Your task to perform on an android device: open chrome and create a bookmark for the current page Image 0: 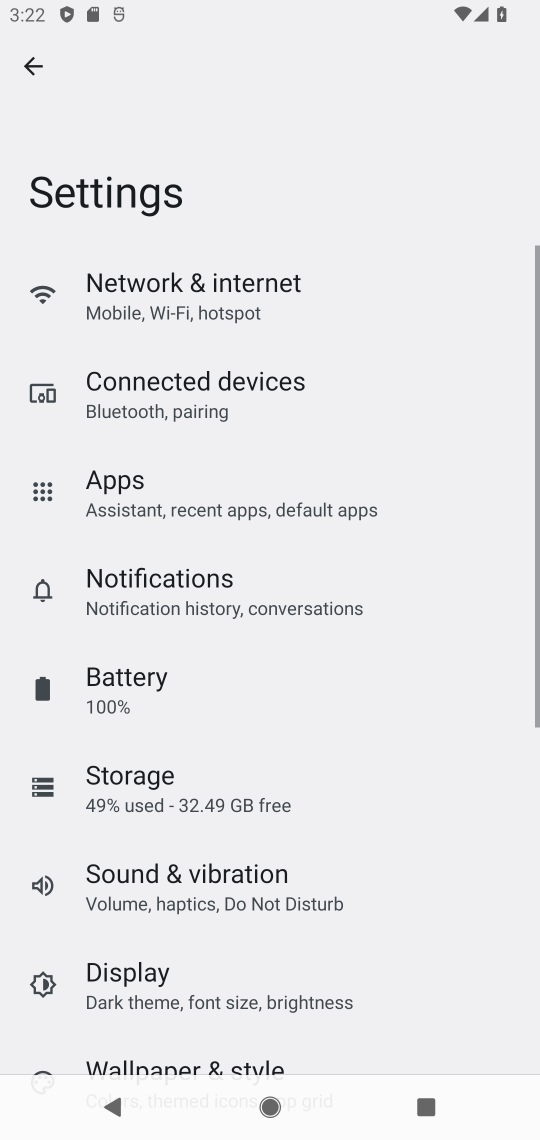
Step 0: press home button
Your task to perform on an android device: open chrome and create a bookmark for the current page Image 1: 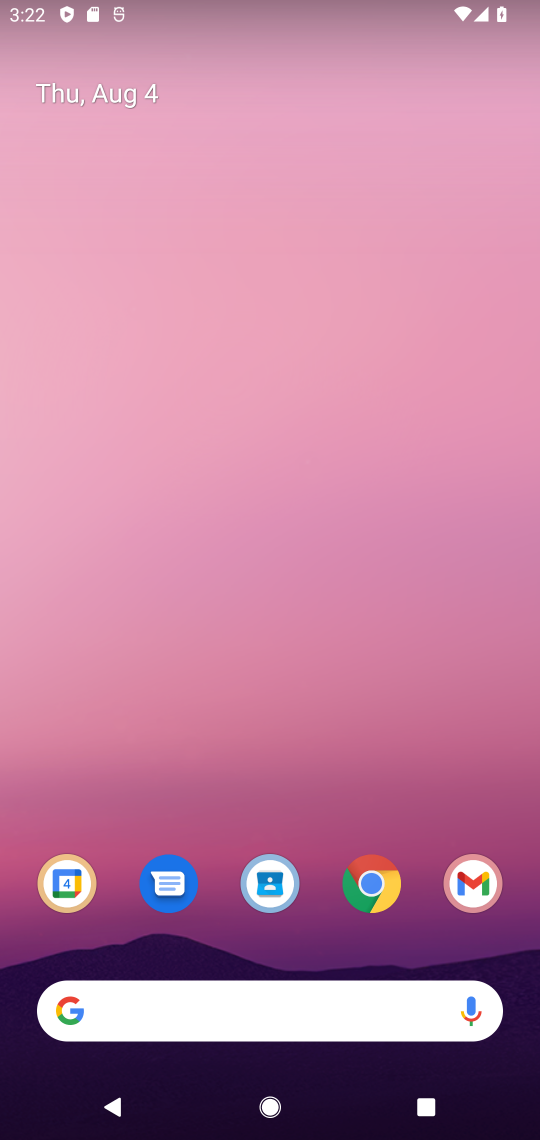
Step 1: drag from (393, 776) to (356, 39)
Your task to perform on an android device: open chrome and create a bookmark for the current page Image 2: 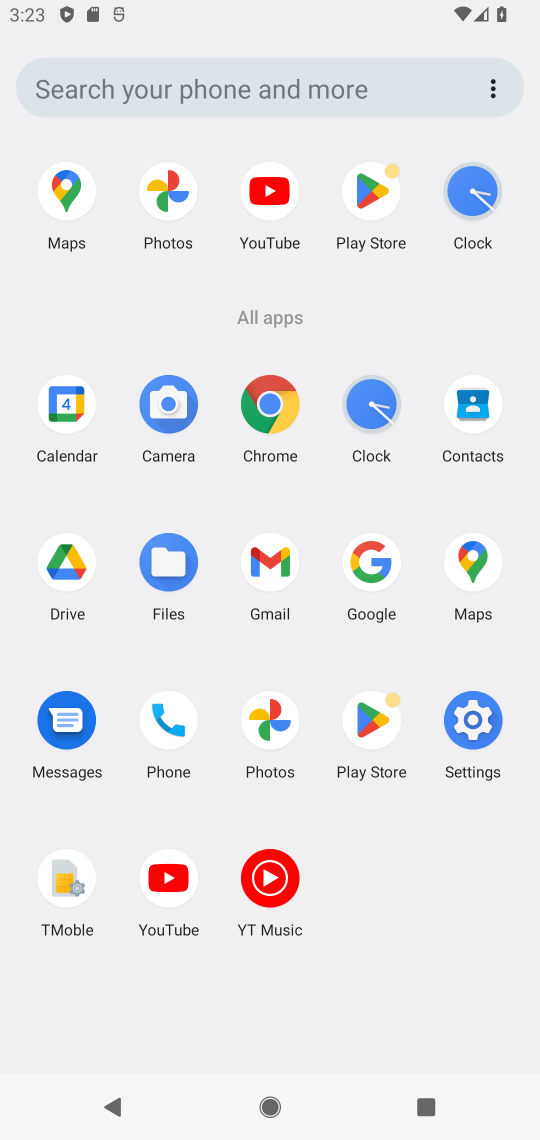
Step 2: click (274, 415)
Your task to perform on an android device: open chrome and create a bookmark for the current page Image 3: 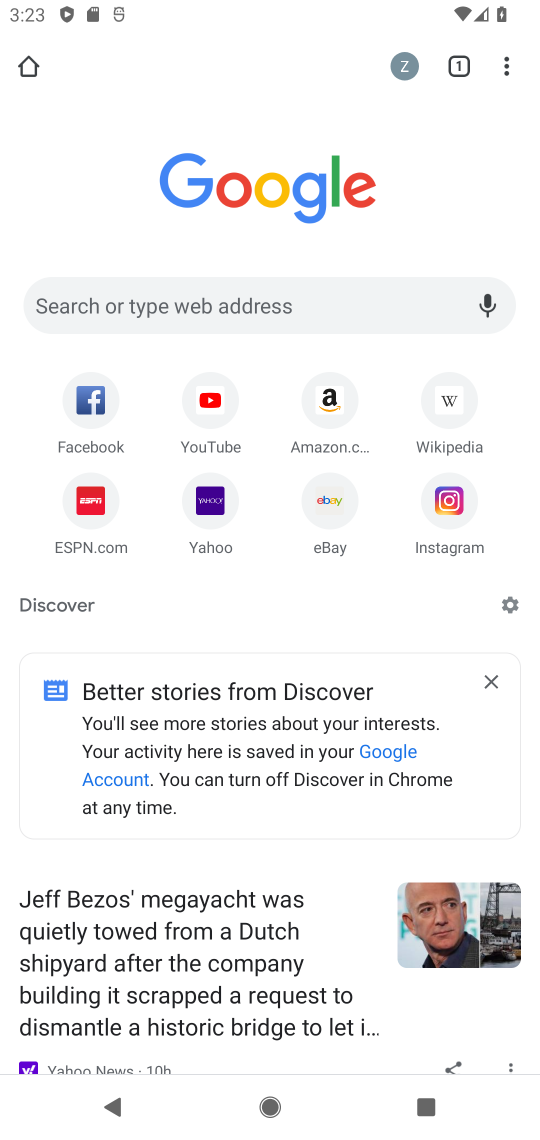
Step 3: click (511, 60)
Your task to perform on an android device: open chrome and create a bookmark for the current page Image 4: 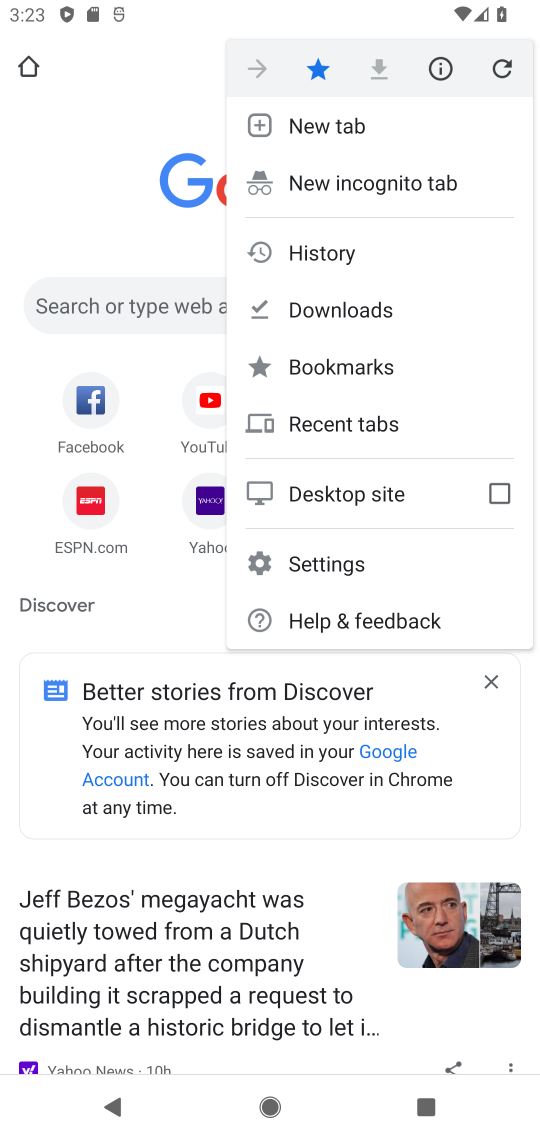
Step 4: task complete